Your task to perform on an android device: Open the web browser Image 0: 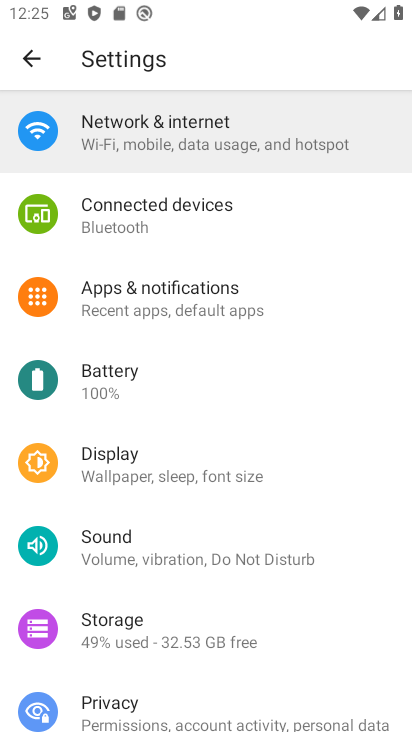
Step 0: press home button
Your task to perform on an android device: Open the web browser Image 1: 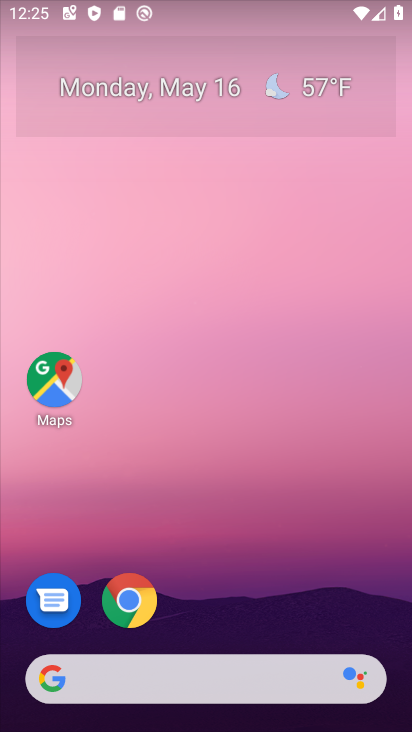
Step 1: click (135, 599)
Your task to perform on an android device: Open the web browser Image 2: 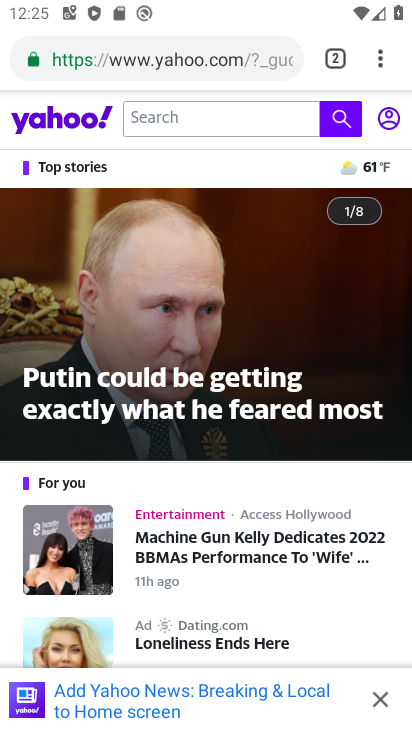
Step 2: task complete